Your task to perform on an android device: show emergency info Image 0: 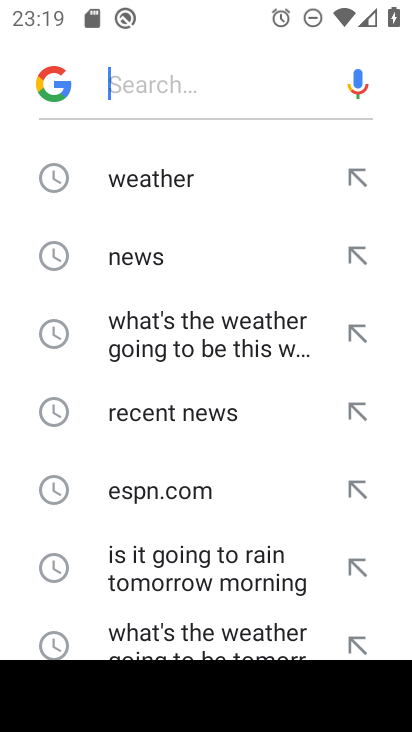
Step 0: press home button
Your task to perform on an android device: show emergency info Image 1: 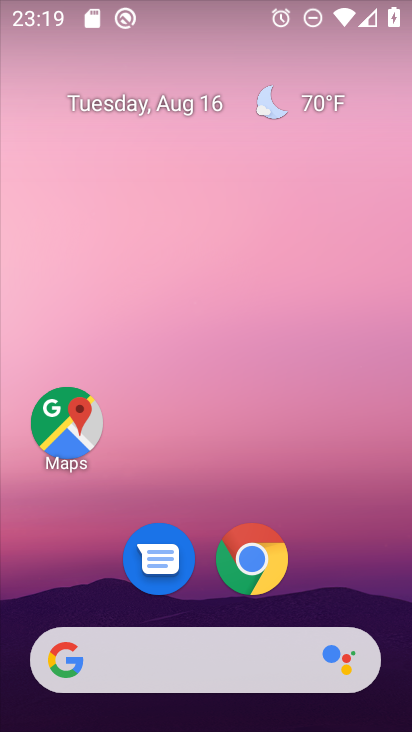
Step 1: drag from (175, 658) to (233, 176)
Your task to perform on an android device: show emergency info Image 2: 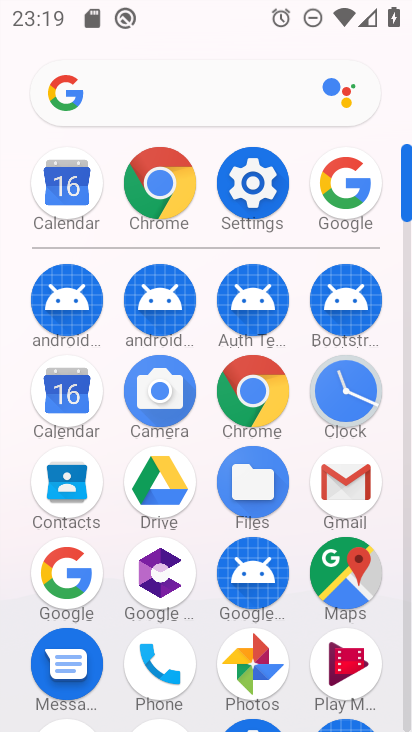
Step 2: click (252, 184)
Your task to perform on an android device: show emergency info Image 3: 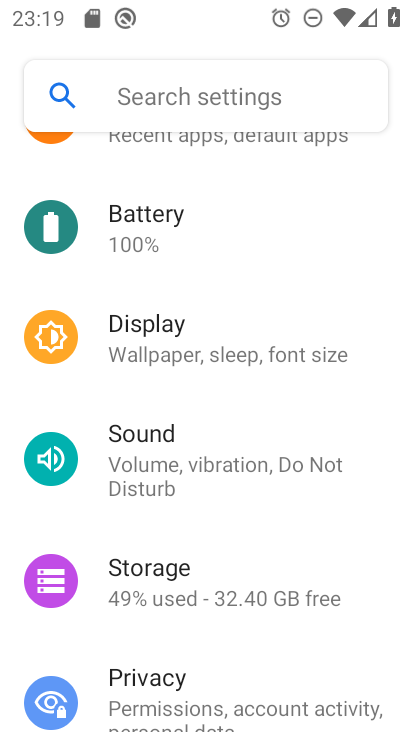
Step 3: drag from (223, 530) to (303, 411)
Your task to perform on an android device: show emergency info Image 4: 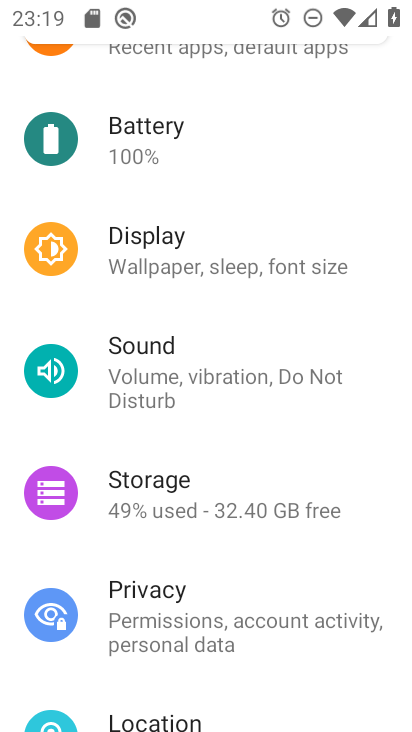
Step 4: drag from (181, 561) to (280, 441)
Your task to perform on an android device: show emergency info Image 5: 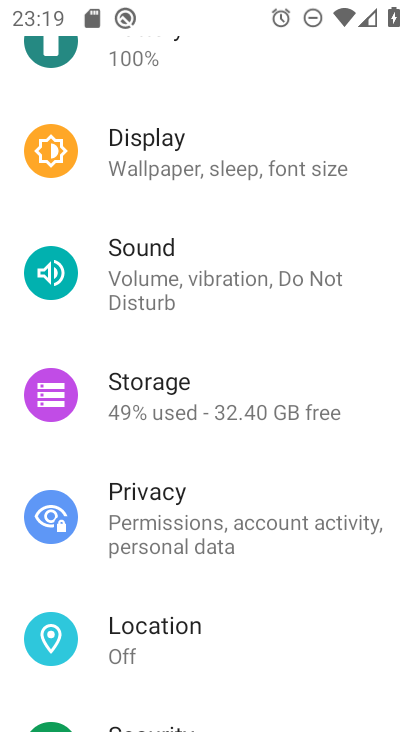
Step 5: drag from (176, 583) to (266, 455)
Your task to perform on an android device: show emergency info Image 6: 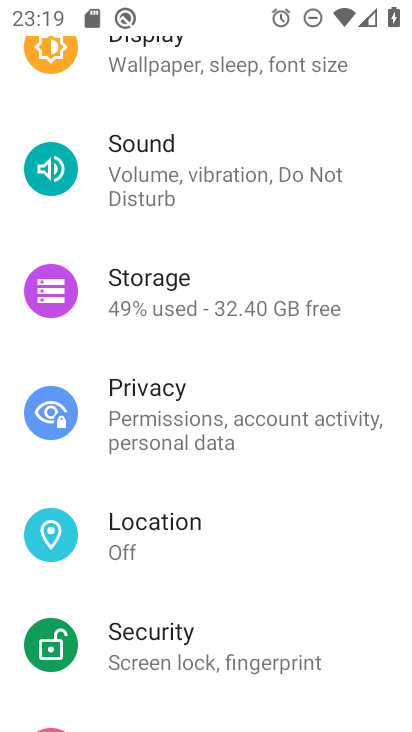
Step 6: drag from (216, 617) to (290, 456)
Your task to perform on an android device: show emergency info Image 7: 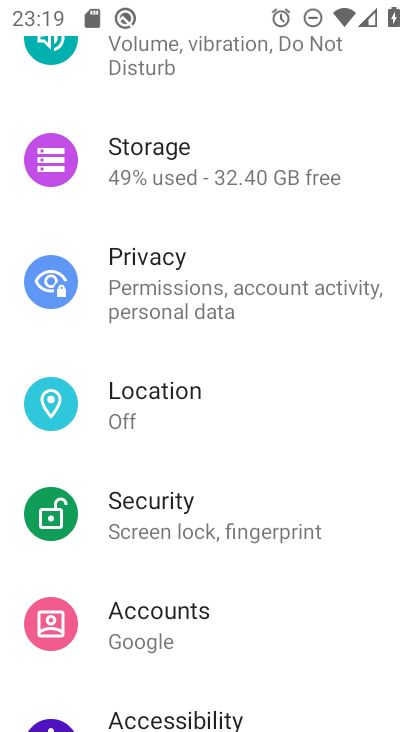
Step 7: drag from (191, 578) to (246, 485)
Your task to perform on an android device: show emergency info Image 8: 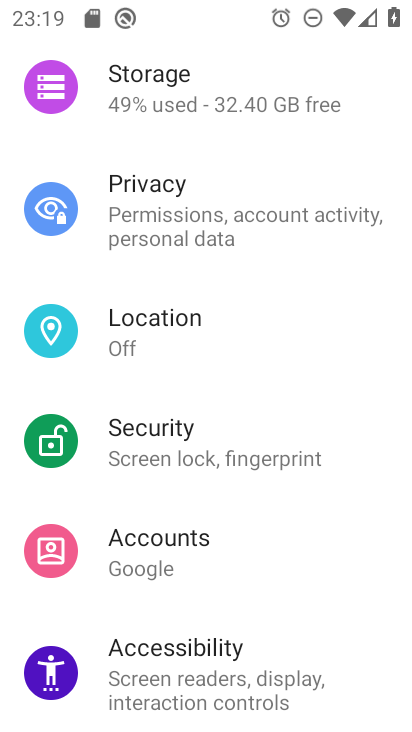
Step 8: drag from (139, 618) to (229, 491)
Your task to perform on an android device: show emergency info Image 9: 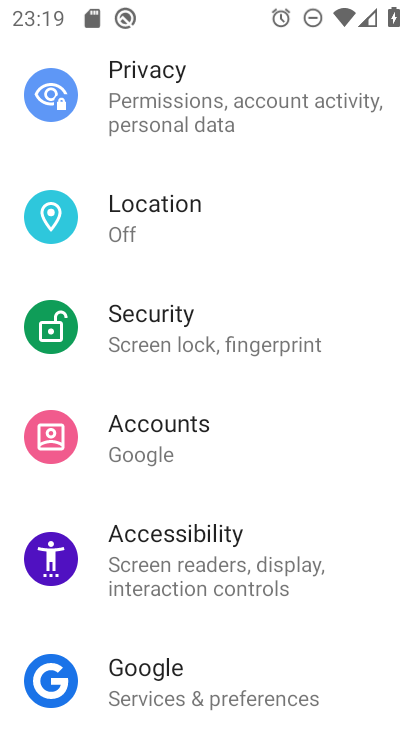
Step 9: drag from (160, 620) to (256, 488)
Your task to perform on an android device: show emergency info Image 10: 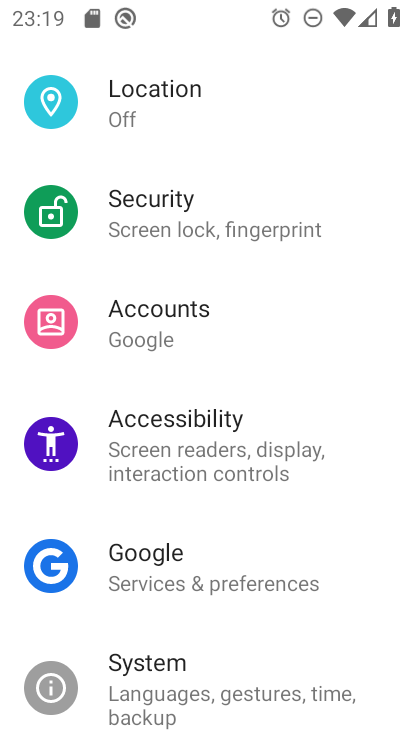
Step 10: drag from (149, 633) to (273, 464)
Your task to perform on an android device: show emergency info Image 11: 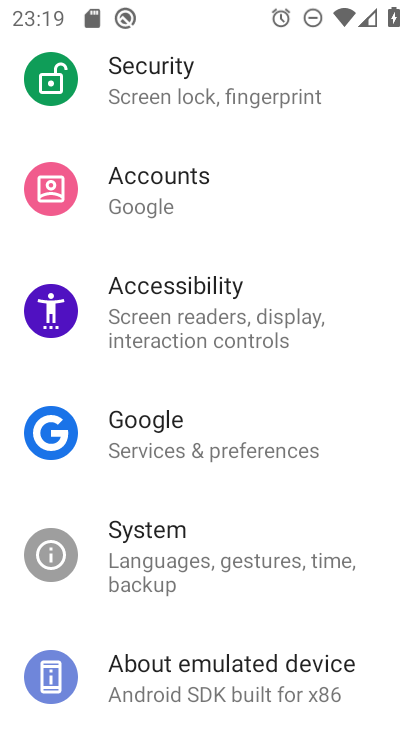
Step 11: click (160, 664)
Your task to perform on an android device: show emergency info Image 12: 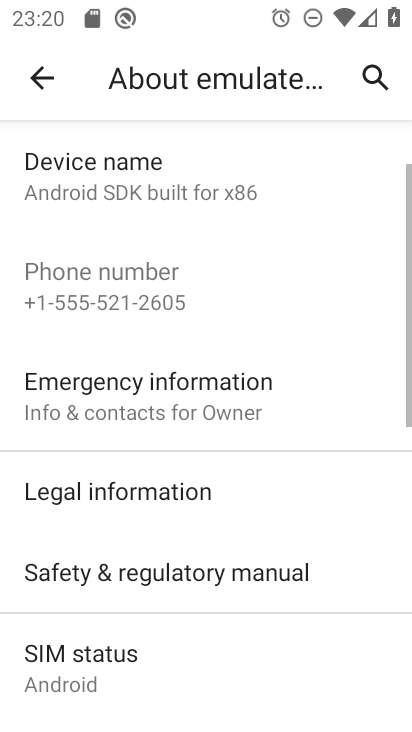
Step 12: click (206, 396)
Your task to perform on an android device: show emergency info Image 13: 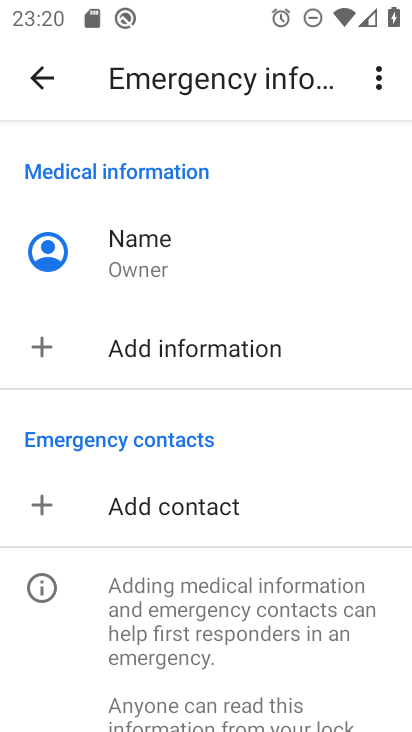
Step 13: task complete